Your task to perform on an android device: empty trash in the gmail app Image 0: 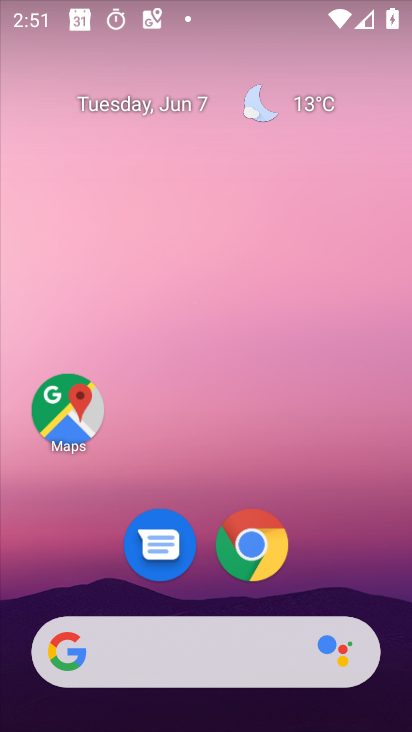
Step 0: drag from (342, 456) to (246, 2)
Your task to perform on an android device: empty trash in the gmail app Image 1: 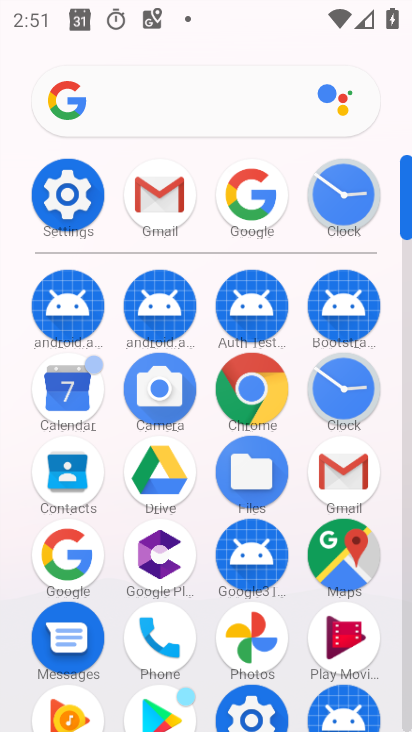
Step 1: click (345, 462)
Your task to perform on an android device: empty trash in the gmail app Image 2: 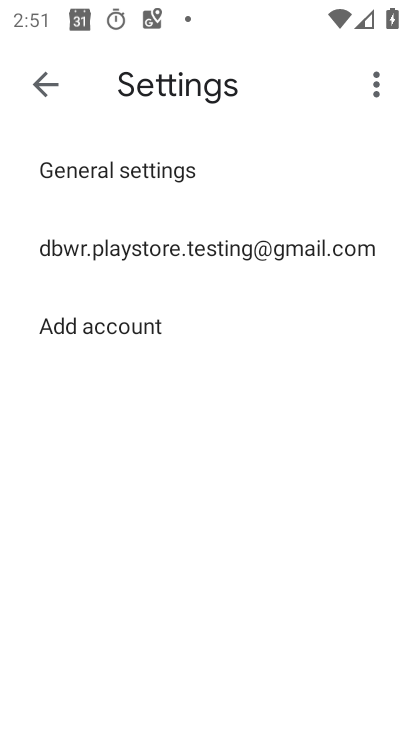
Step 2: click (42, 70)
Your task to perform on an android device: empty trash in the gmail app Image 3: 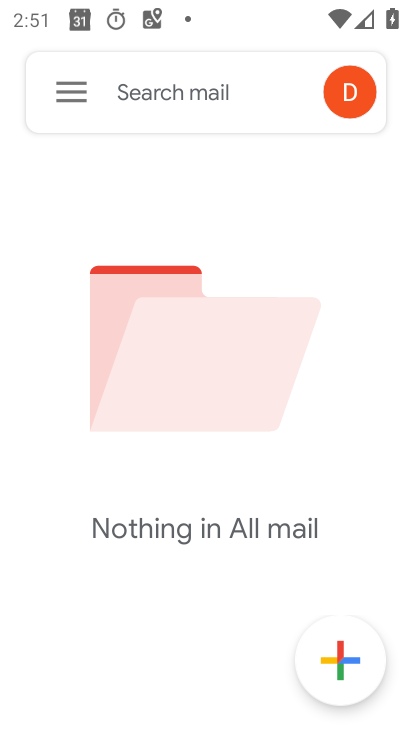
Step 3: click (72, 100)
Your task to perform on an android device: empty trash in the gmail app Image 4: 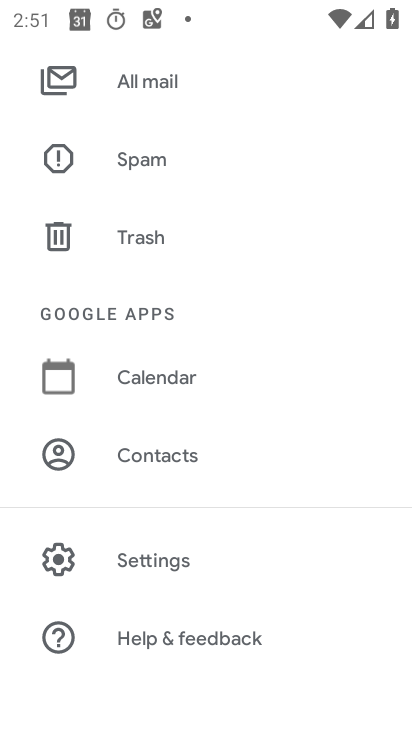
Step 4: drag from (201, 559) to (208, 705)
Your task to perform on an android device: empty trash in the gmail app Image 5: 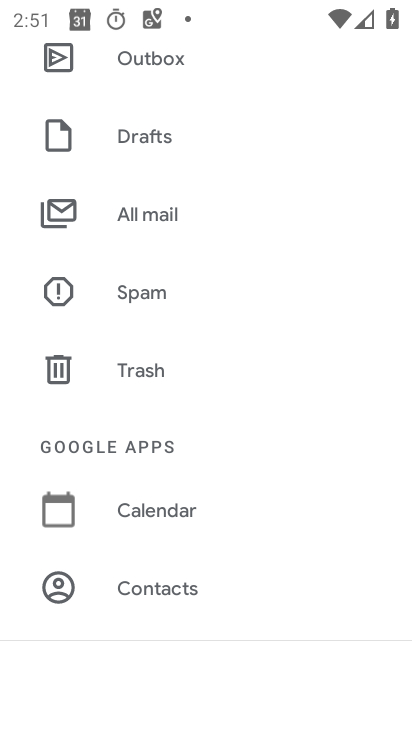
Step 5: click (173, 353)
Your task to perform on an android device: empty trash in the gmail app Image 6: 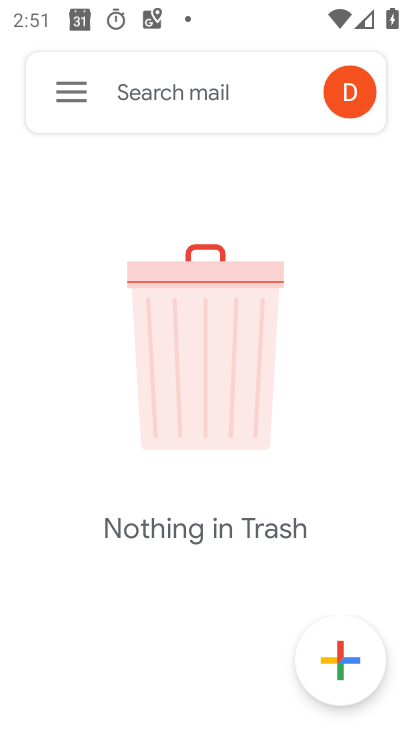
Step 6: task complete